Your task to perform on an android device: see creations saved in the google photos Image 0: 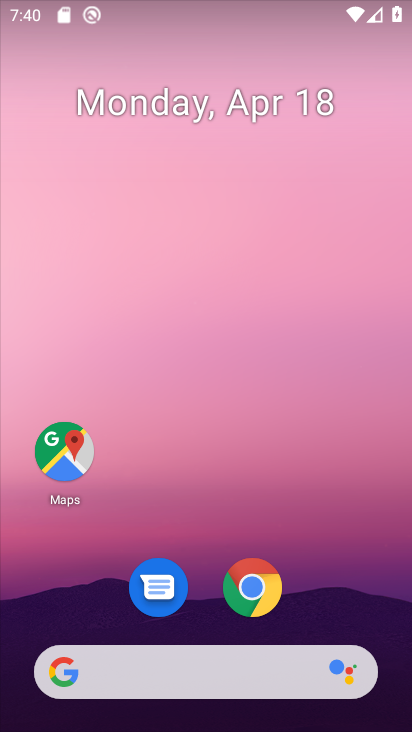
Step 0: drag from (203, 540) to (210, 190)
Your task to perform on an android device: see creations saved in the google photos Image 1: 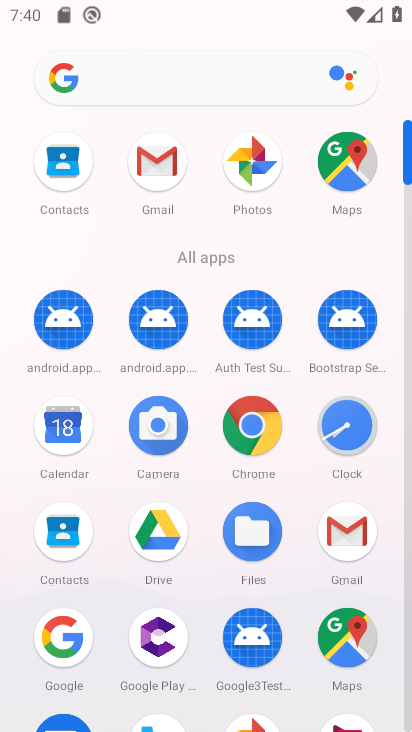
Step 1: click (250, 168)
Your task to perform on an android device: see creations saved in the google photos Image 2: 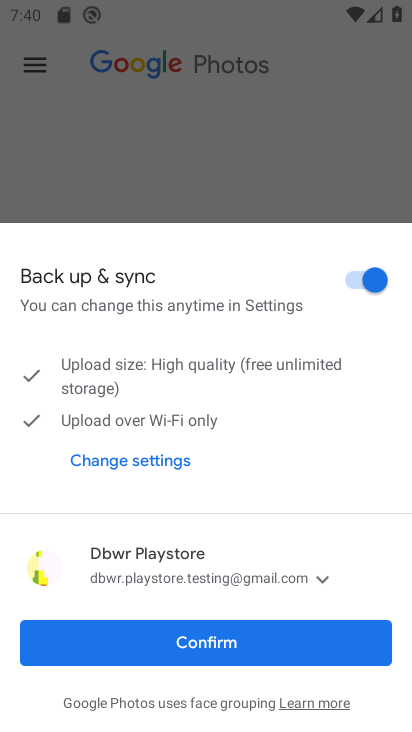
Step 2: click (250, 168)
Your task to perform on an android device: see creations saved in the google photos Image 3: 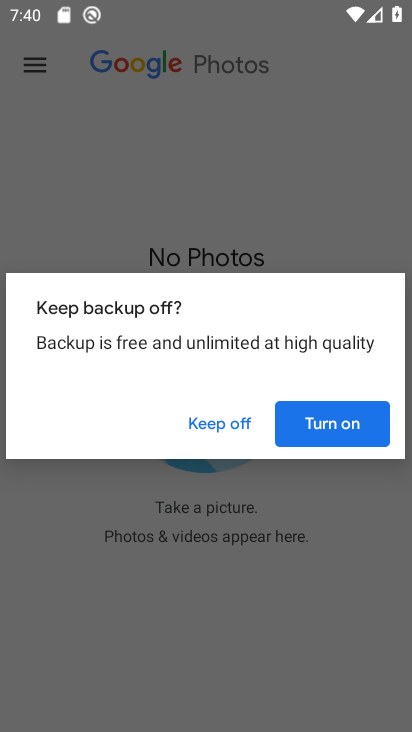
Step 3: click (233, 437)
Your task to perform on an android device: see creations saved in the google photos Image 4: 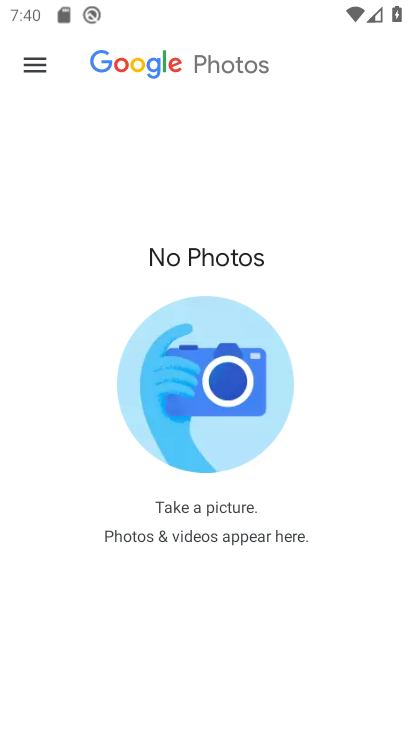
Step 4: click (23, 92)
Your task to perform on an android device: see creations saved in the google photos Image 5: 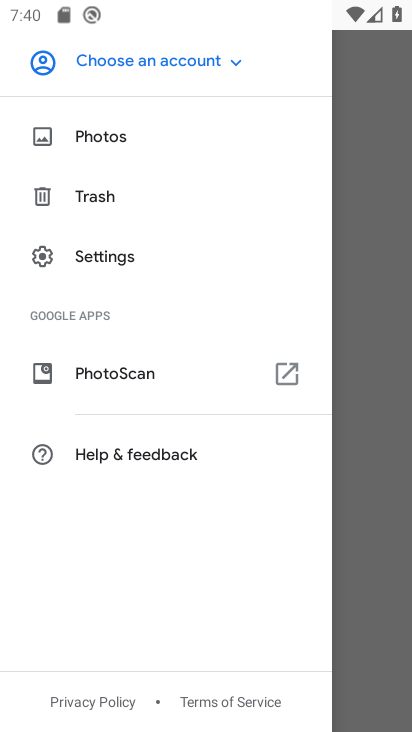
Step 5: click (157, 134)
Your task to perform on an android device: see creations saved in the google photos Image 6: 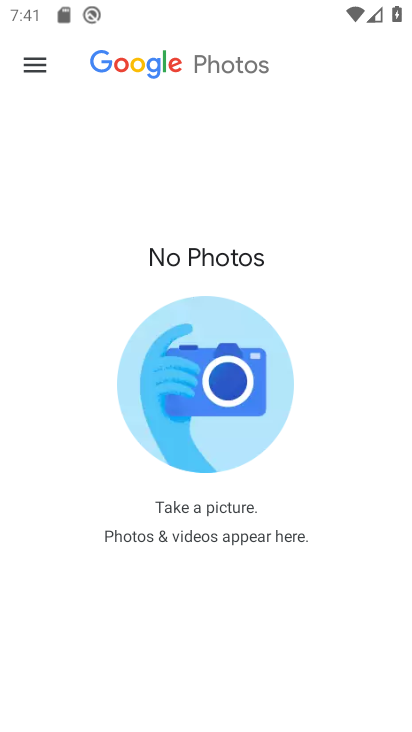
Step 6: task complete